Your task to perform on an android device: install app "Google Duo" Image 0: 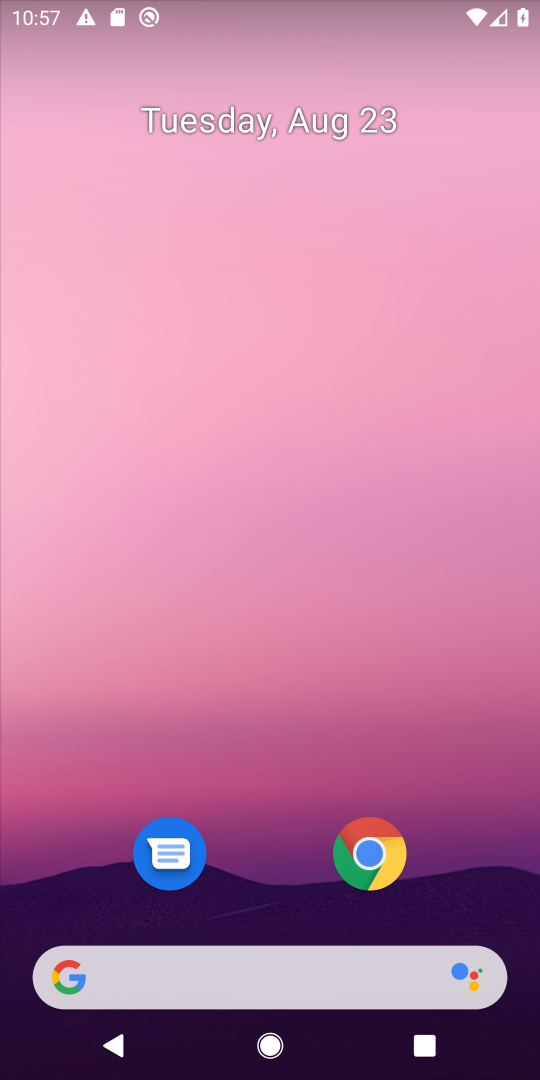
Step 0: drag from (278, 888) to (536, 589)
Your task to perform on an android device: install app "Google Duo" Image 1: 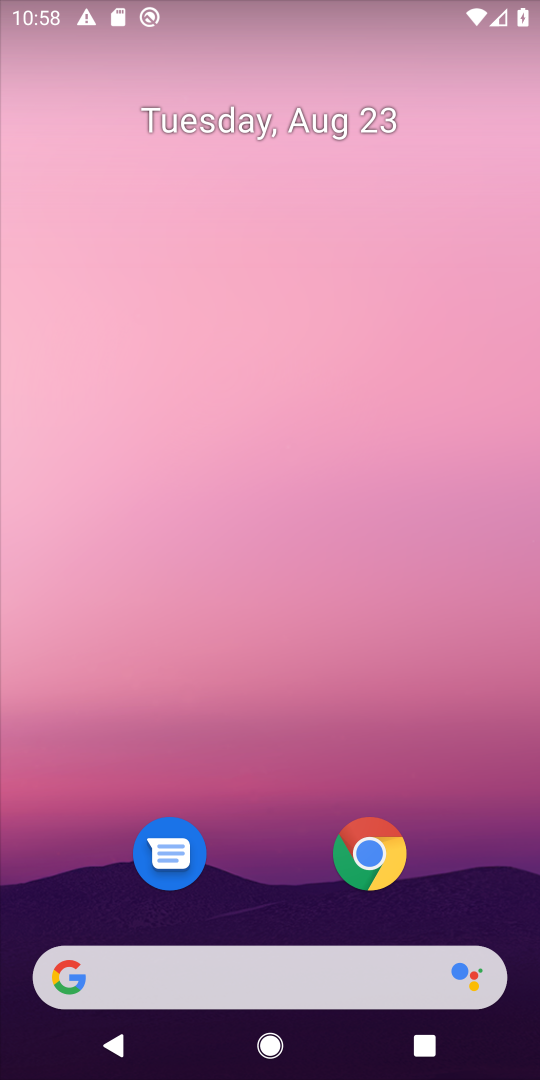
Step 1: drag from (317, 868) to (380, 165)
Your task to perform on an android device: install app "Google Duo" Image 2: 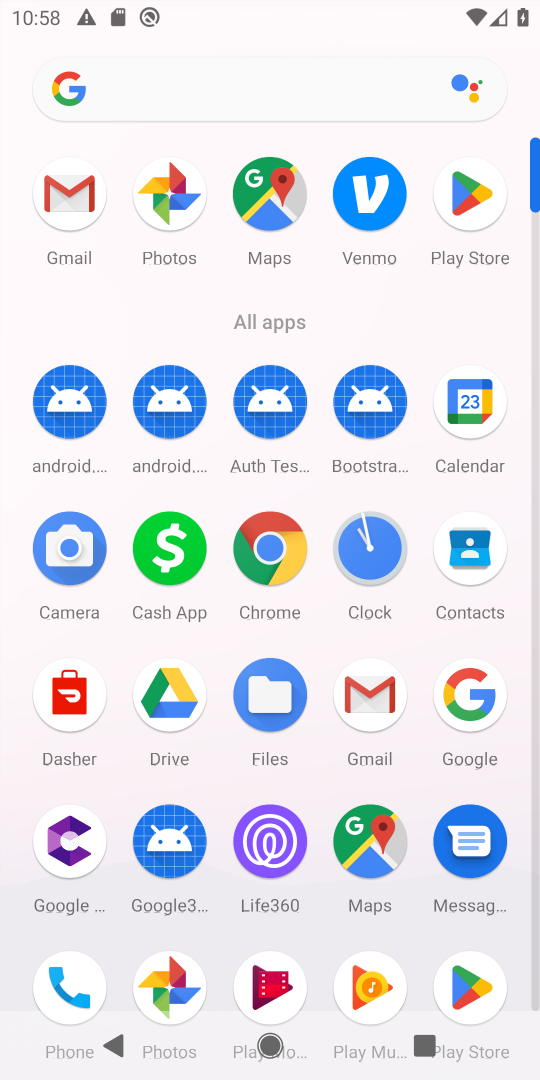
Step 2: click (455, 197)
Your task to perform on an android device: install app "Google Duo" Image 3: 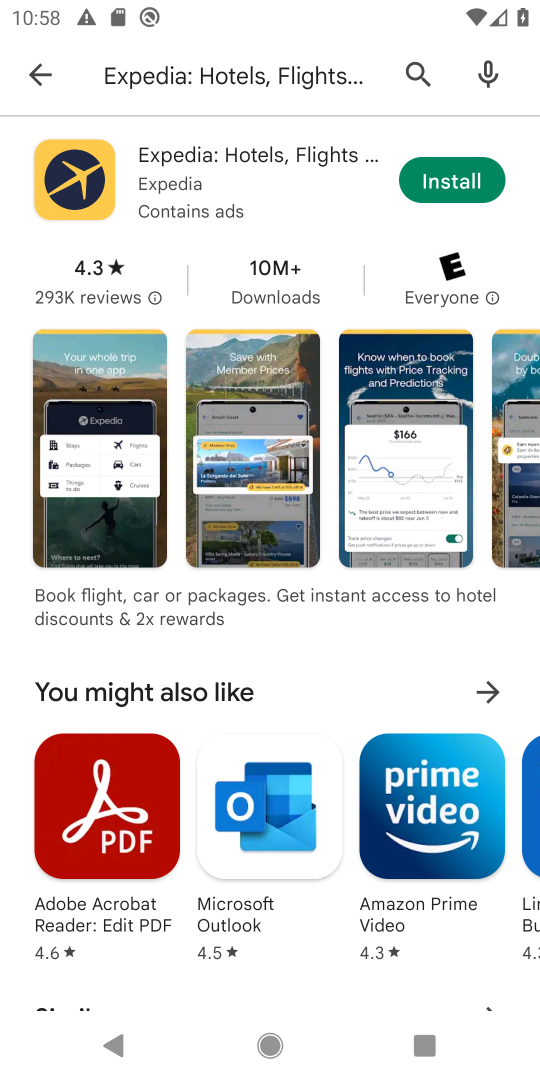
Step 3: press back button
Your task to perform on an android device: install app "Google Duo" Image 4: 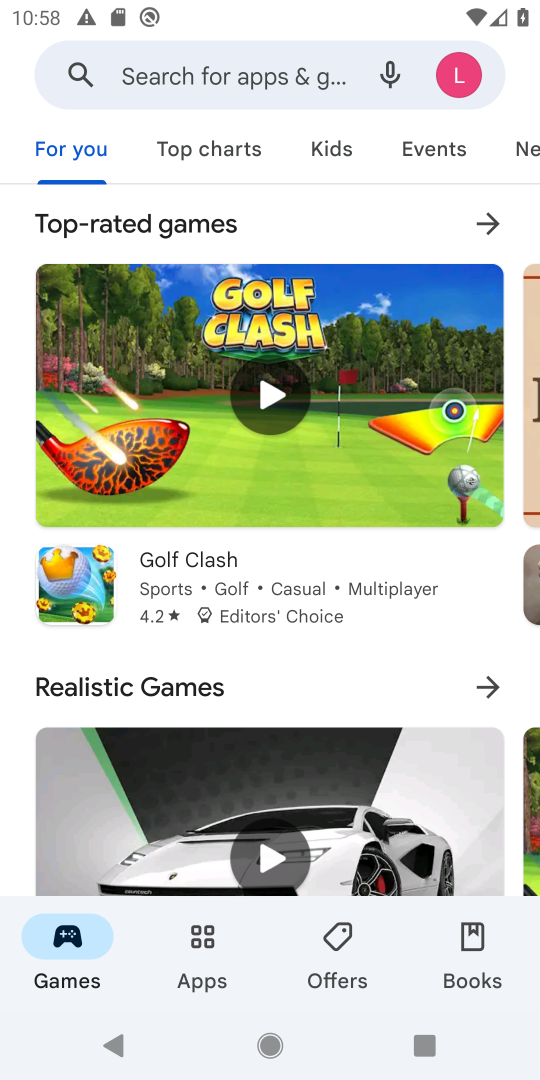
Step 4: click (228, 93)
Your task to perform on an android device: install app "Google Duo" Image 5: 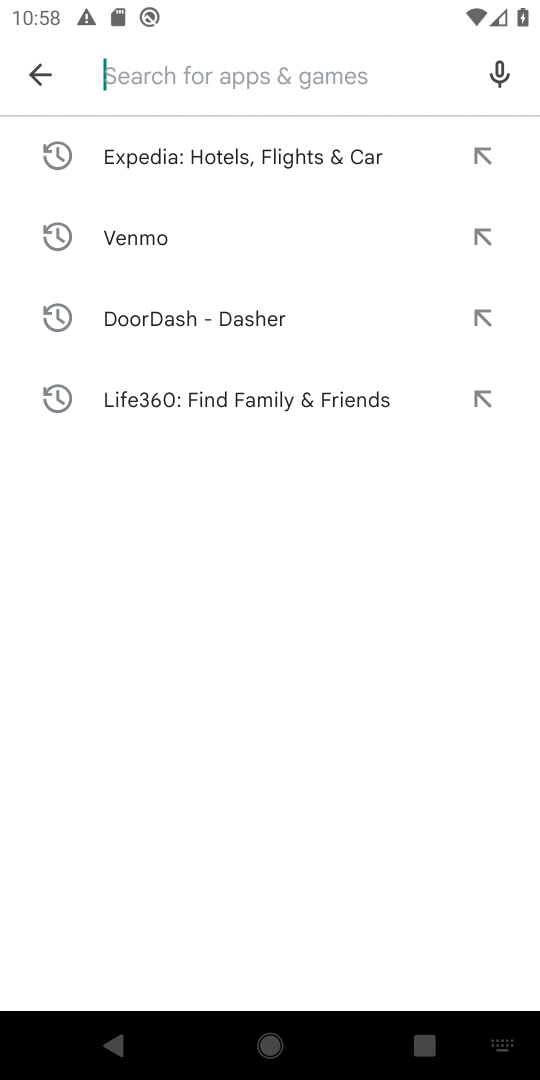
Step 5: type "Google Duo"
Your task to perform on an android device: install app "Google Duo" Image 6: 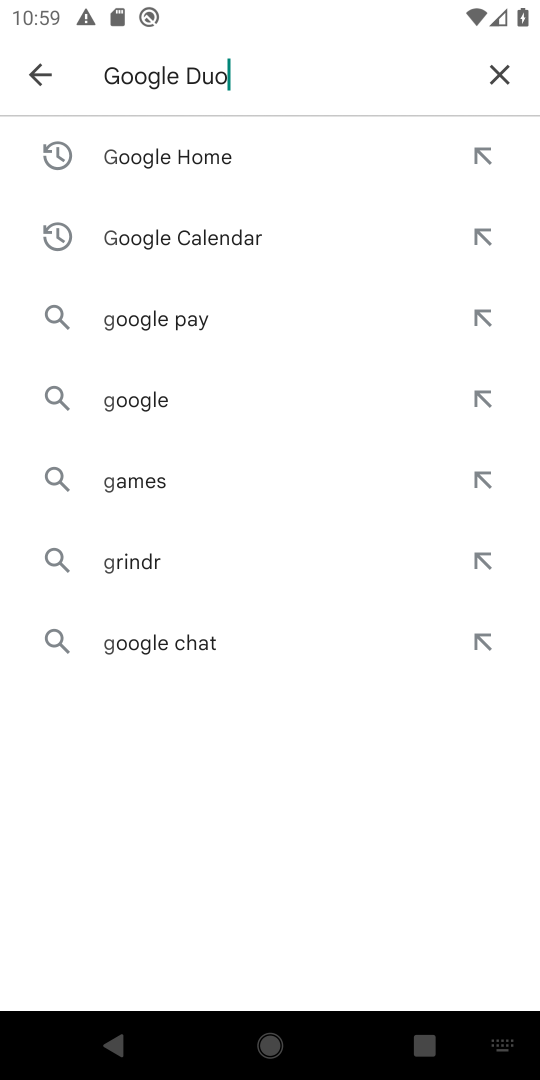
Step 6: press enter
Your task to perform on an android device: install app "Google Duo" Image 7: 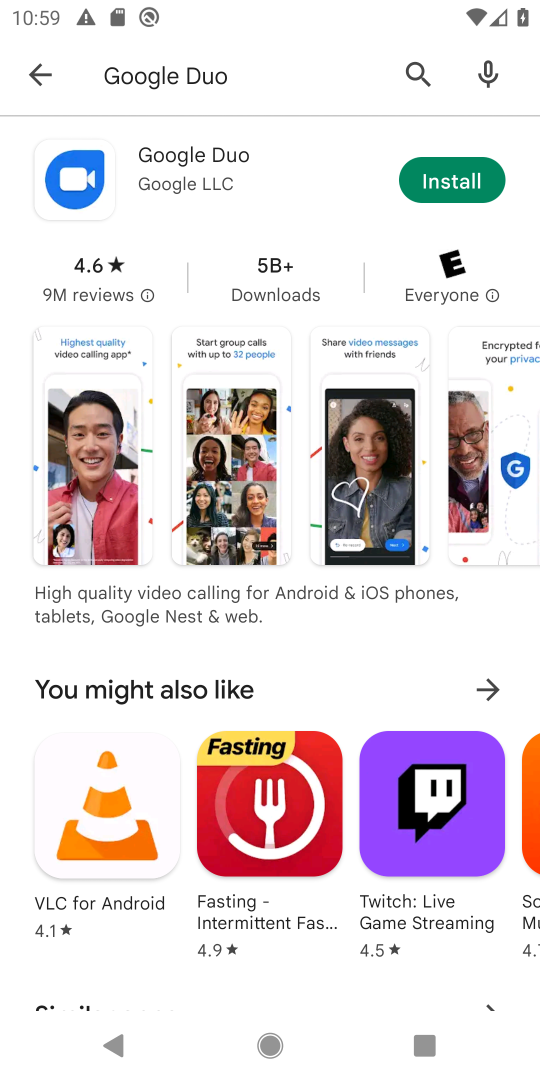
Step 7: click (476, 181)
Your task to perform on an android device: install app "Google Duo" Image 8: 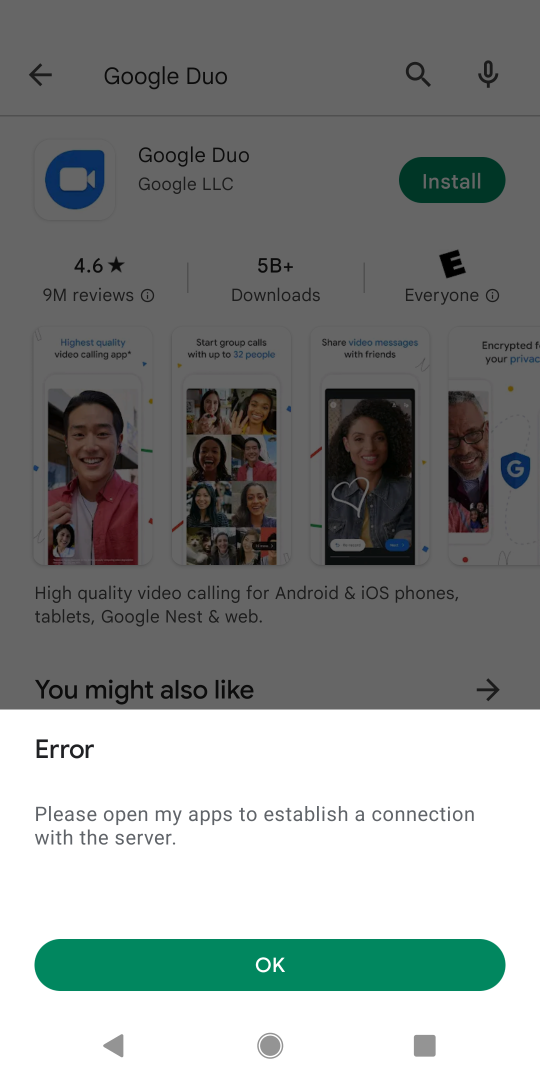
Step 8: click (261, 975)
Your task to perform on an android device: install app "Google Duo" Image 9: 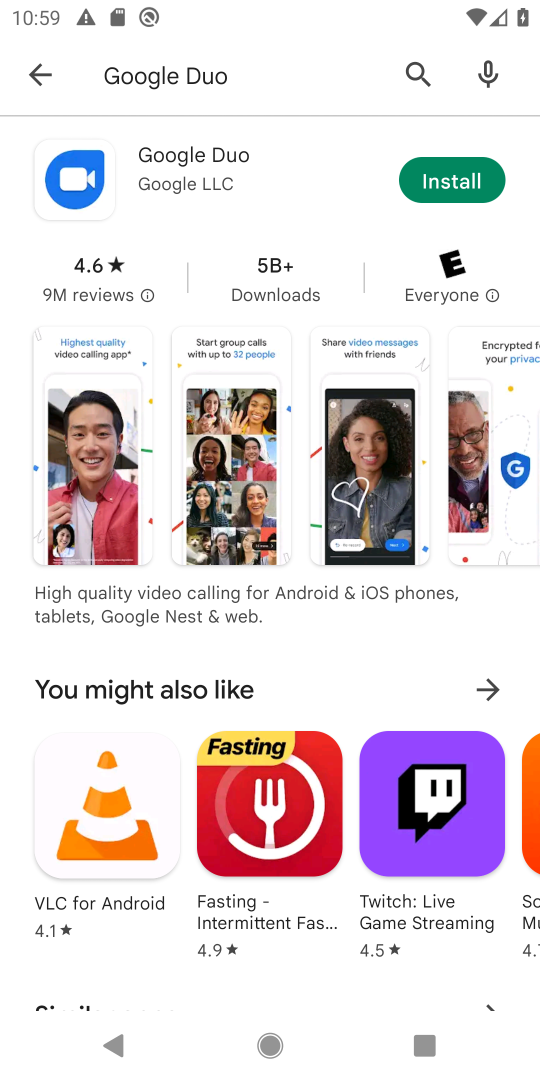
Step 9: task complete